Your task to perform on an android device: Open Android settings Image 0: 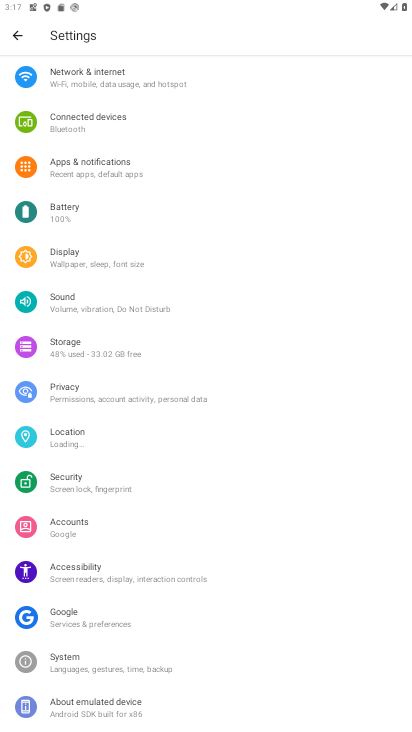
Step 0: press home button
Your task to perform on an android device: Open Android settings Image 1: 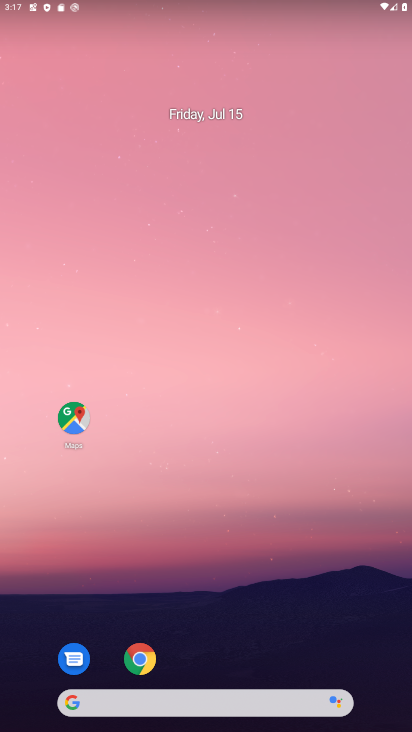
Step 1: drag from (133, 408) to (230, 147)
Your task to perform on an android device: Open Android settings Image 2: 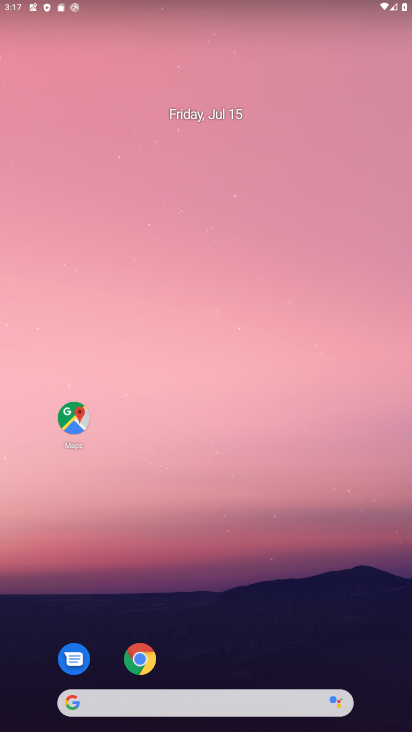
Step 2: drag from (12, 706) to (369, 74)
Your task to perform on an android device: Open Android settings Image 3: 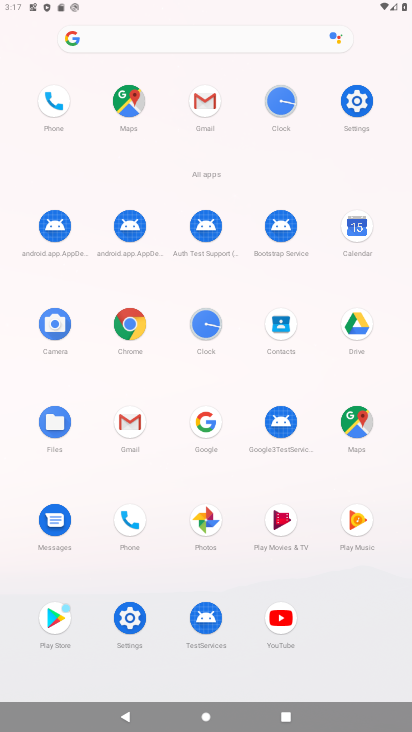
Step 3: click (114, 631)
Your task to perform on an android device: Open Android settings Image 4: 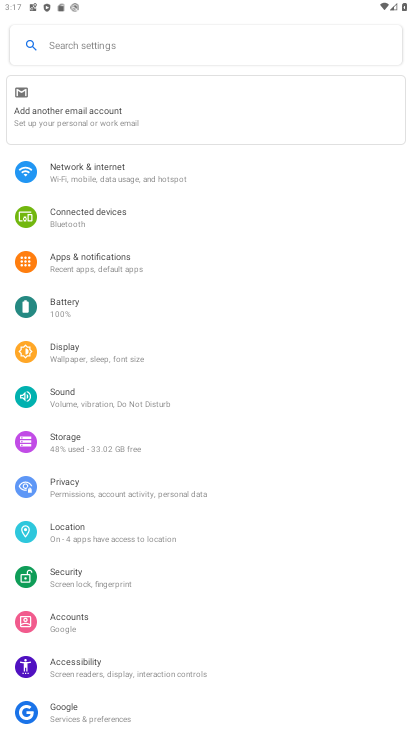
Step 4: drag from (312, 649) to (379, 324)
Your task to perform on an android device: Open Android settings Image 5: 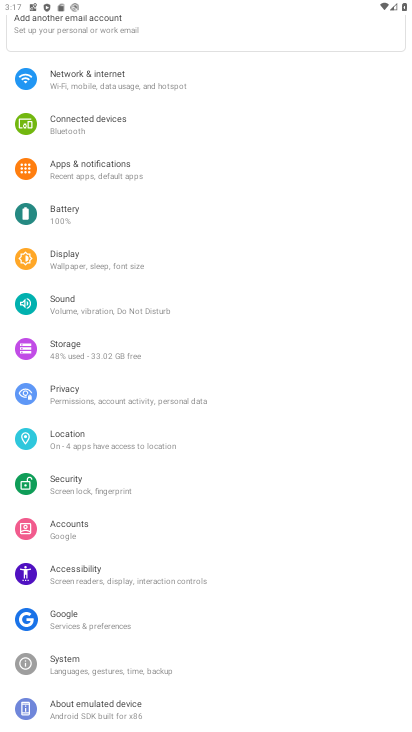
Step 5: click (96, 717)
Your task to perform on an android device: Open Android settings Image 6: 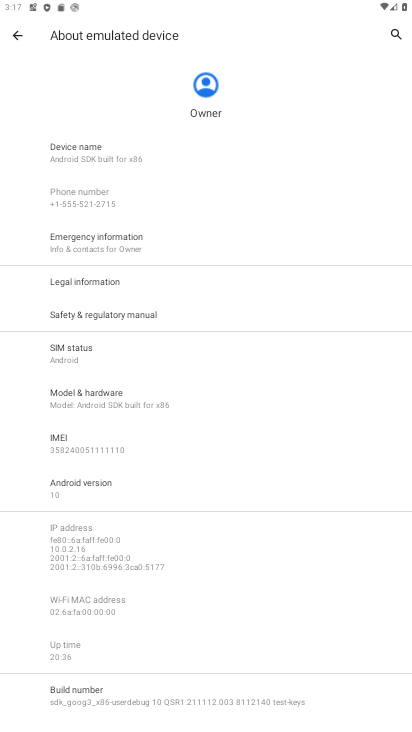
Step 6: click (85, 488)
Your task to perform on an android device: Open Android settings Image 7: 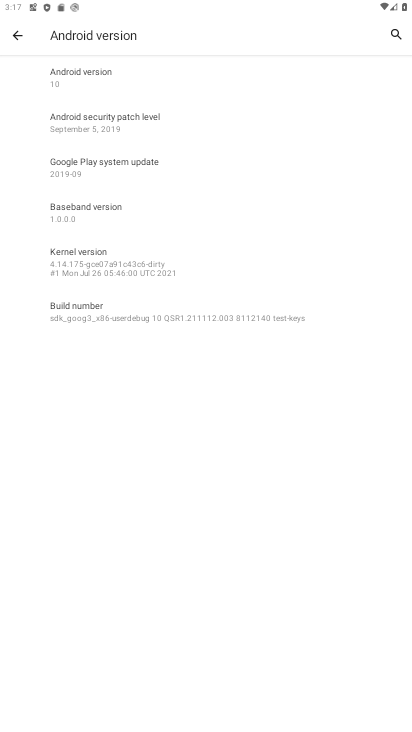
Step 7: task complete